Your task to perform on an android device: What's on my calendar tomorrow? Image 0: 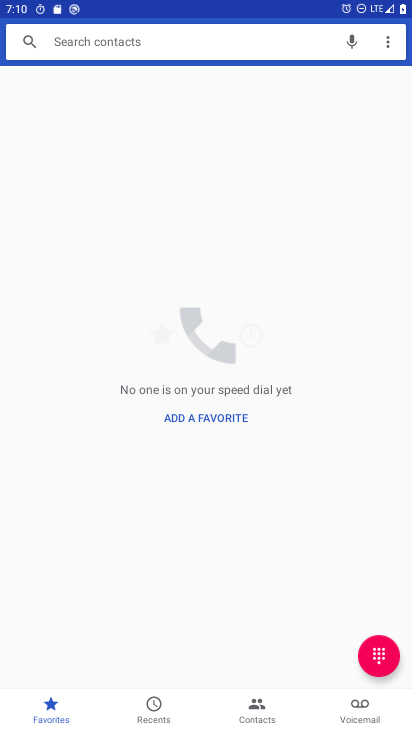
Step 0: press home button
Your task to perform on an android device: What's on my calendar tomorrow? Image 1: 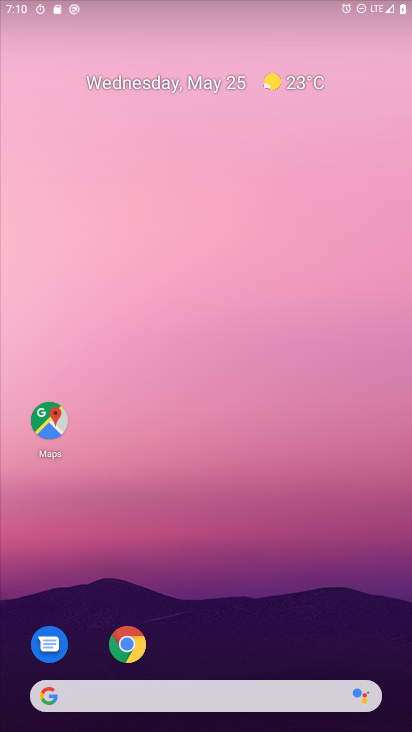
Step 1: drag from (314, 622) to (294, 8)
Your task to perform on an android device: What's on my calendar tomorrow? Image 2: 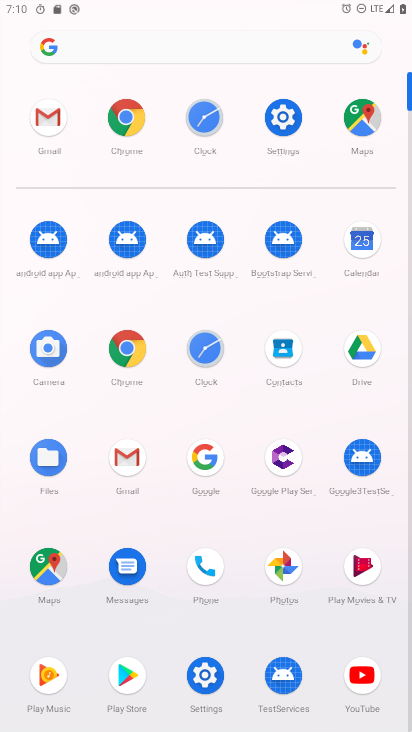
Step 2: click (373, 247)
Your task to perform on an android device: What's on my calendar tomorrow? Image 3: 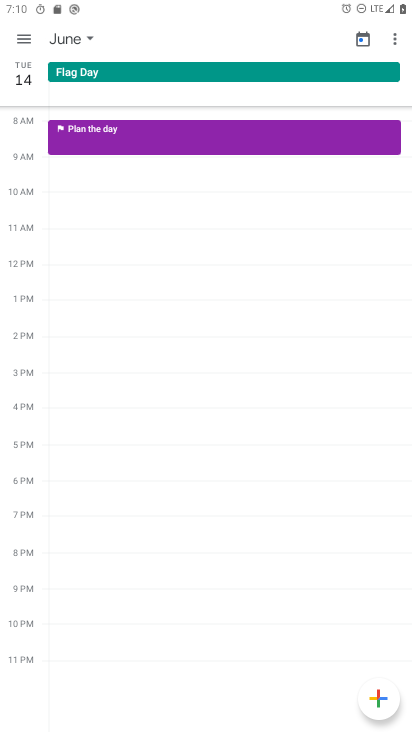
Step 3: click (76, 38)
Your task to perform on an android device: What's on my calendar tomorrow? Image 4: 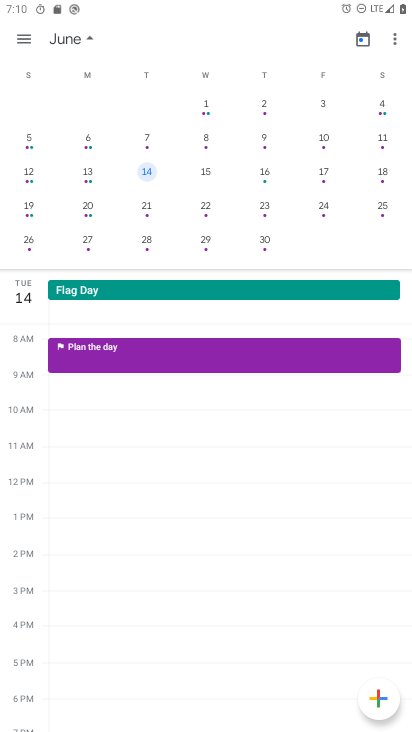
Step 4: click (205, 174)
Your task to perform on an android device: What's on my calendar tomorrow? Image 5: 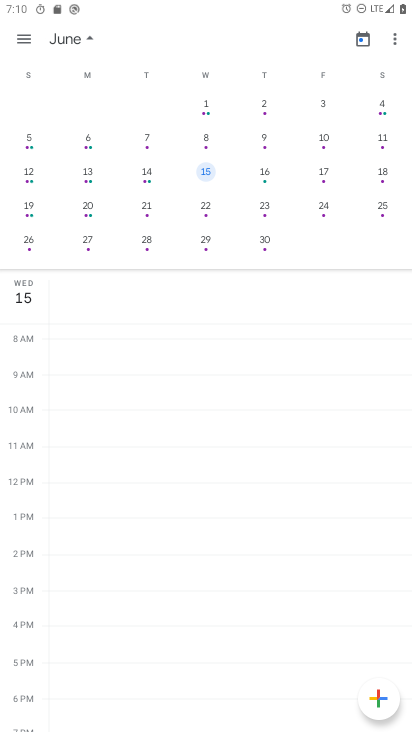
Step 5: task complete